Your task to perform on an android device: Go to ESPN.com Image 0: 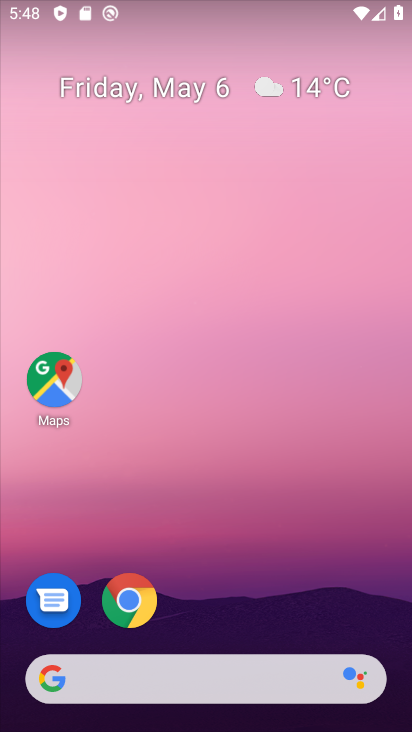
Step 0: click (131, 596)
Your task to perform on an android device: Go to ESPN.com Image 1: 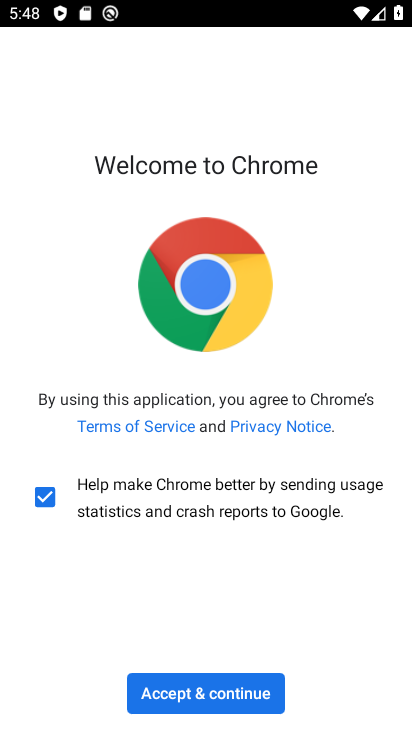
Step 1: click (173, 693)
Your task to perform on an android device: Go to ESPN.com Image 2: 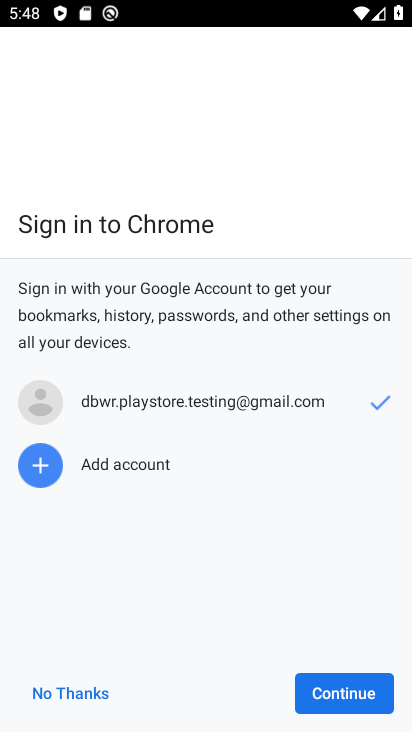
Step 2: click (332, 698)
Your task to perform on an android device: Go to ESPN.com Image 3: 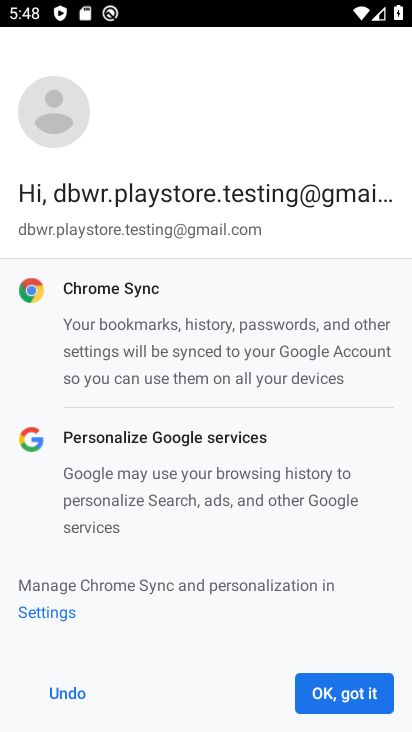
Step 3: click (332, 698)
Your task to perform on an android device: Go to ESPN.com Image 4: 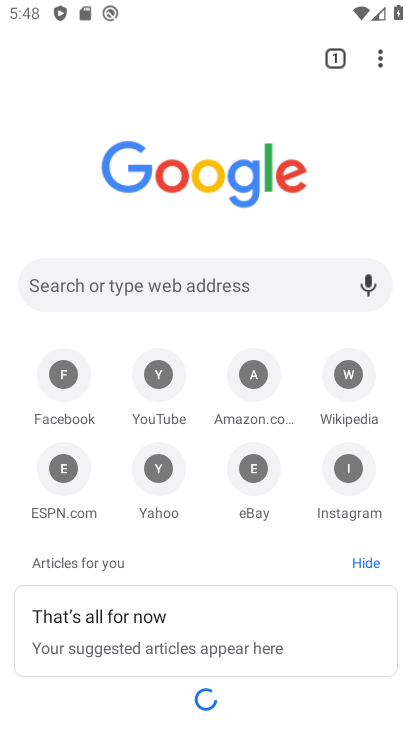
Step 4: click (193, 279)
Your task to perform on an android device: Go to ESPN.com Image 5: 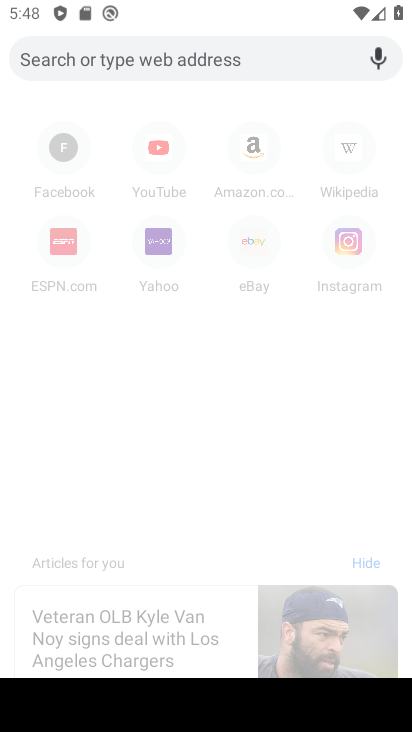
Step 5: type "ESPN.com"
Your task to perform on an android device: Go to ESPN.com Image 6: 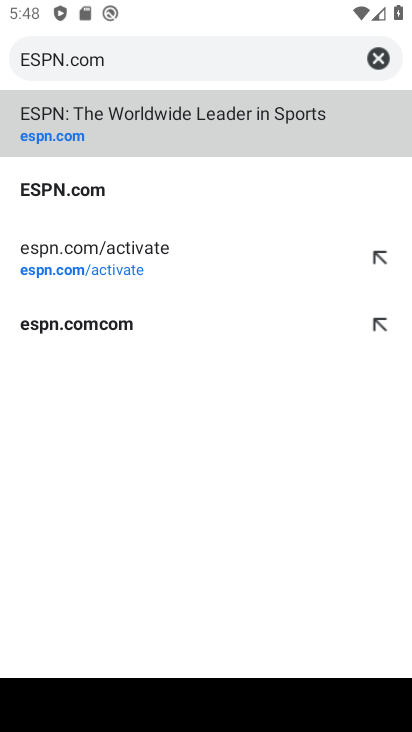
Step 6: click (44, 186)
Your task to perform on an android device: Go to ESPN.com Image 7: 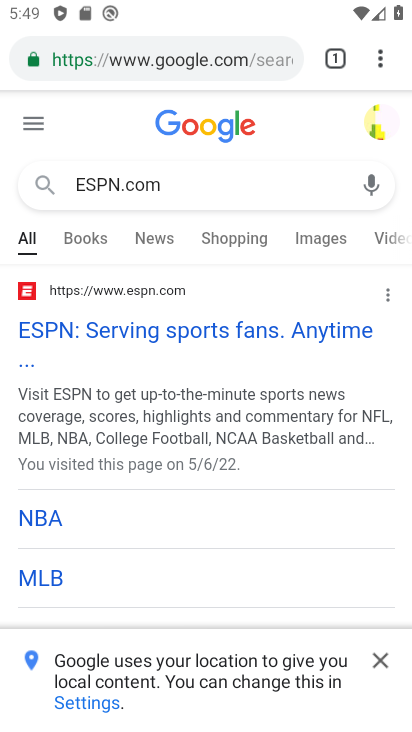
Step 7: click (184, 335)
Your task to perform on an android device: Go to ESPN.com Image 8: 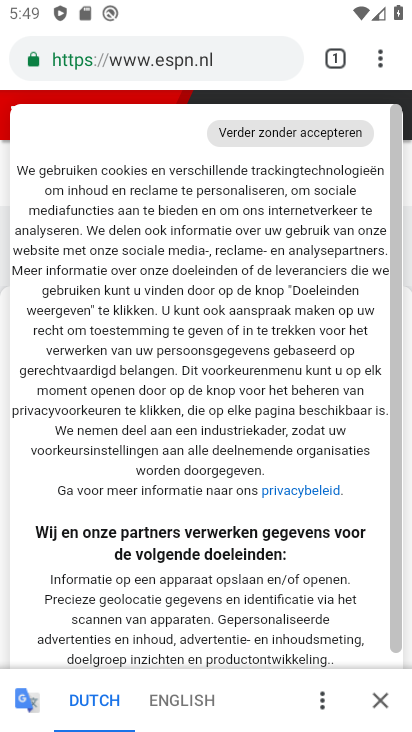
Step 8: task complete